Your task to perform on an android device: Go to Amazon Image 0: 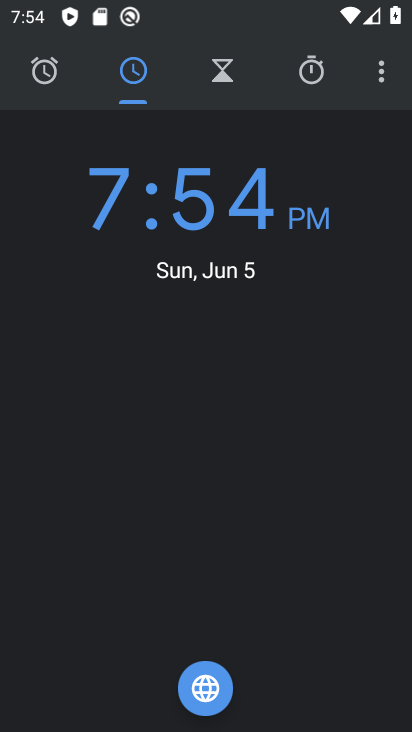
Step 0: press home button
Your task to perform on an android device: Go to Amazon Image 1: 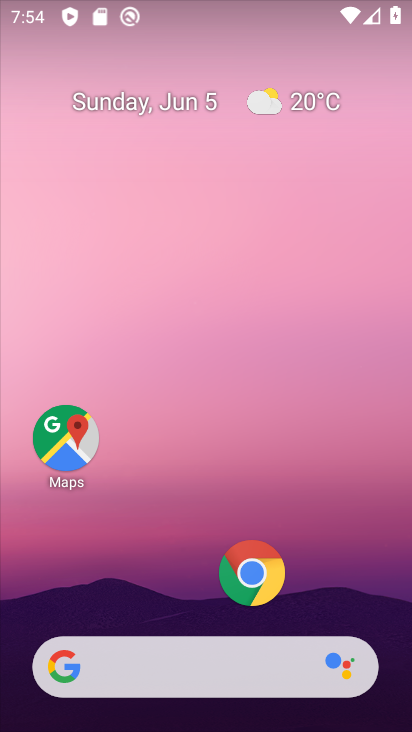
Step 1: click (255, 570)
Your task to perform on an android device: Go to Amazon Image 2: 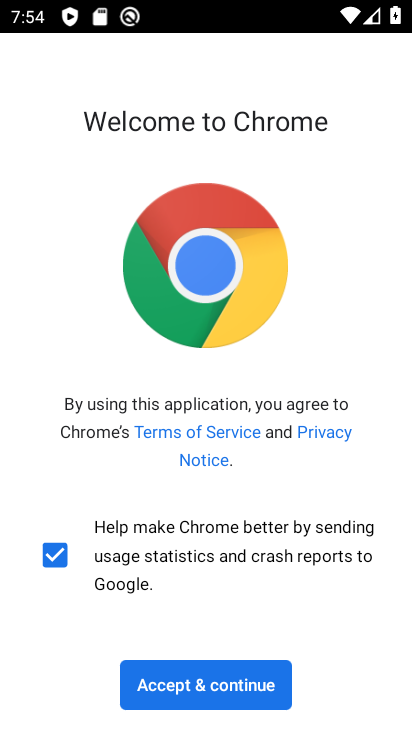
Step 2: click (206, 672)
Your task to perform on an android device: Go to Amazon Image 3: 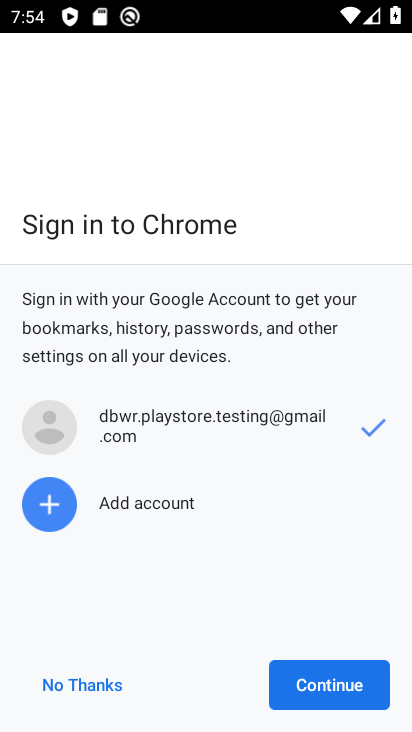
Step 3: click (361, 698)
Your task to perform on an android device: Go to Amazon Image 4: 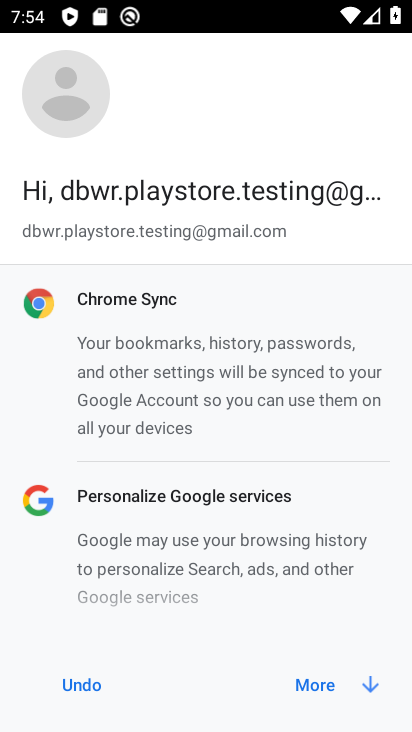
Step 4: click (317, 672)
Your task to perform on an android device: Go to Amazon Image 5: 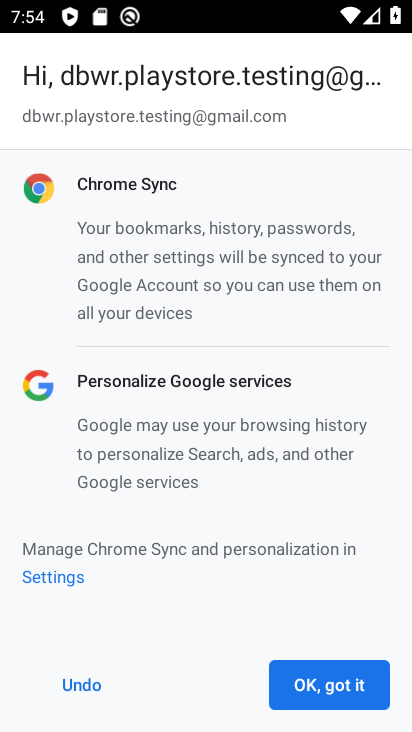
Step 5: click (317, 672)
Your task to perform on an android device: Go to Amazon Image 6: 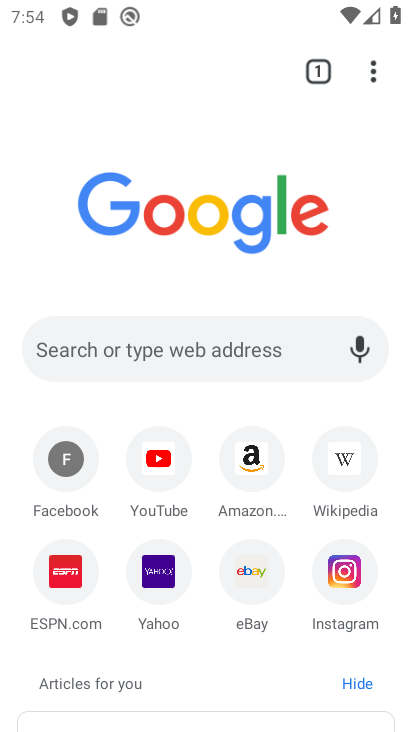
Step 6: click (248, 465)
Your task to perform on an android device: Go to Amazon Image 7: 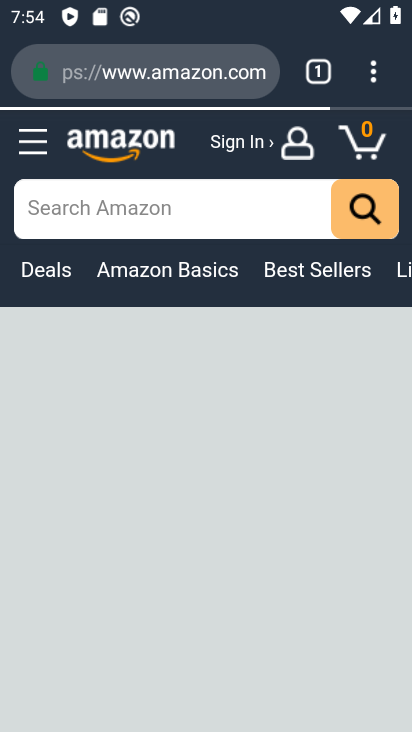
Step 7: task complete